Your task to perform on an android device: install app "NewsBreak: Local News & Alerts" Image 0: 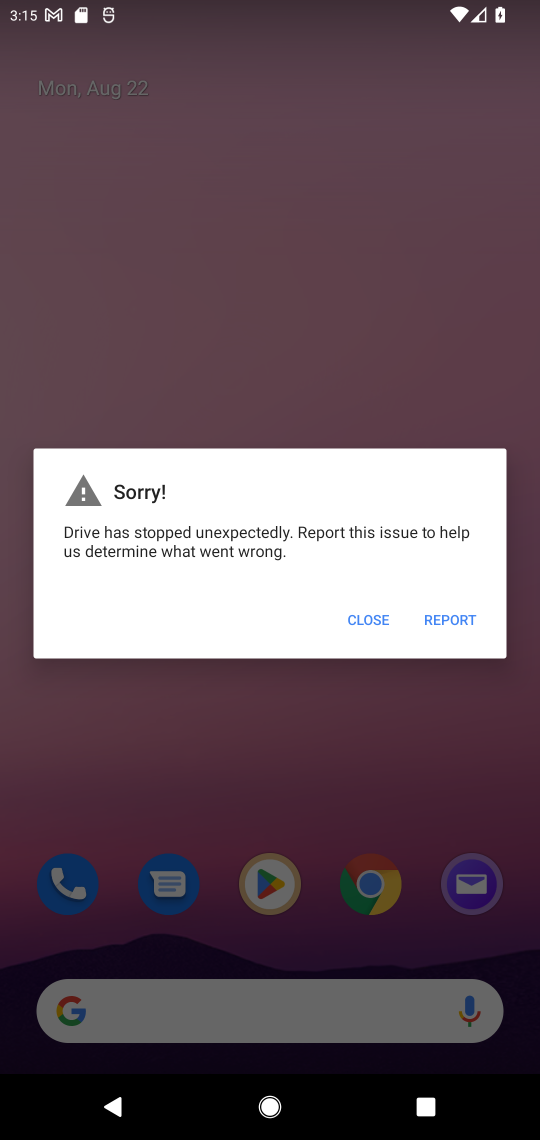
Step 0: click (368, 612)
Your task to perform on an android device: install app "NewsBreak: Local News & Alerts" Image 1: 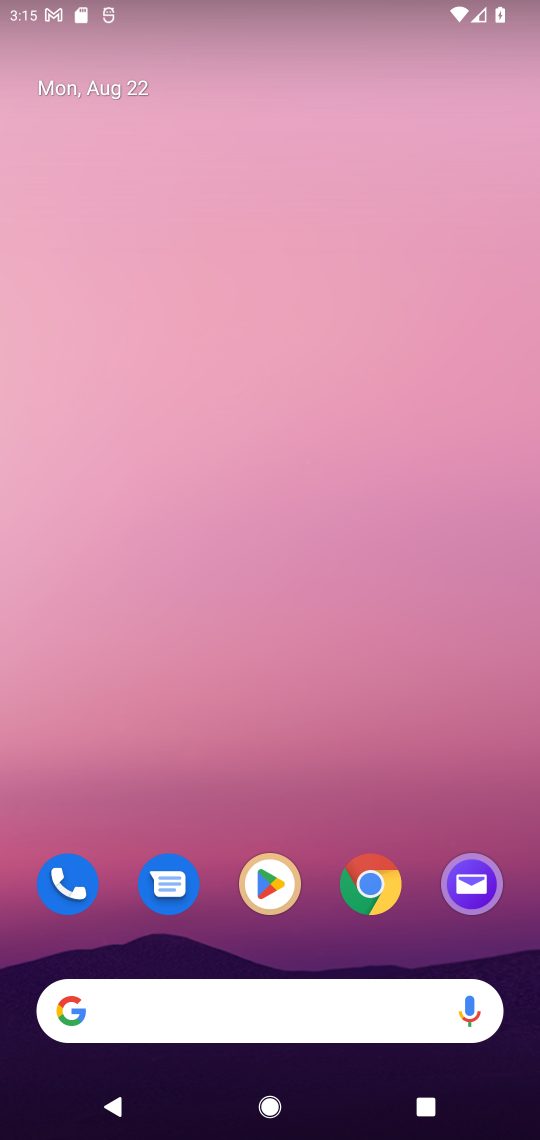
Step 1: click (279, 884)
Your task to perform on an android device: install app "NewsBreak: Local News & Alerts" Image 2: 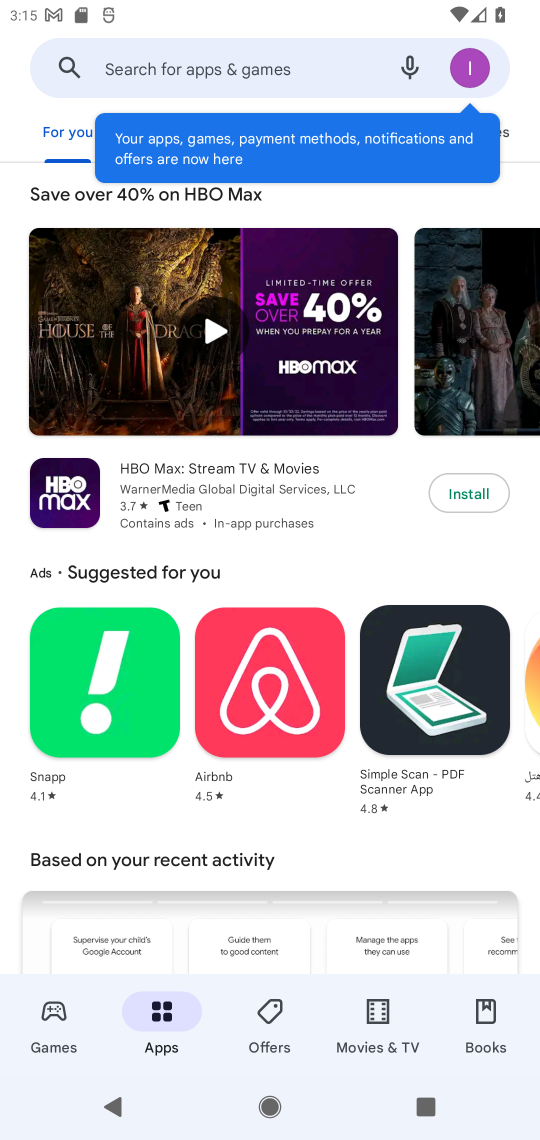
Step 2: click (232, 54)
Your task to perform on an android device: install app "NewsBreak: Local News & Alerts" Image 3: 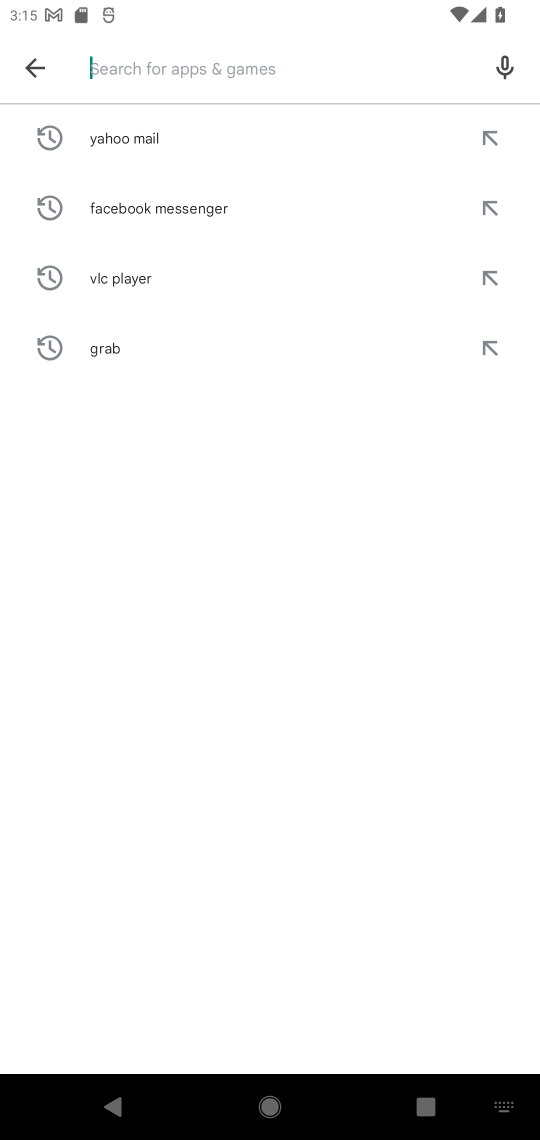
Step 3: type "news break"
Your task to perform on an android device: install app "NewsBreak: Local News & Alerts" Image 4: 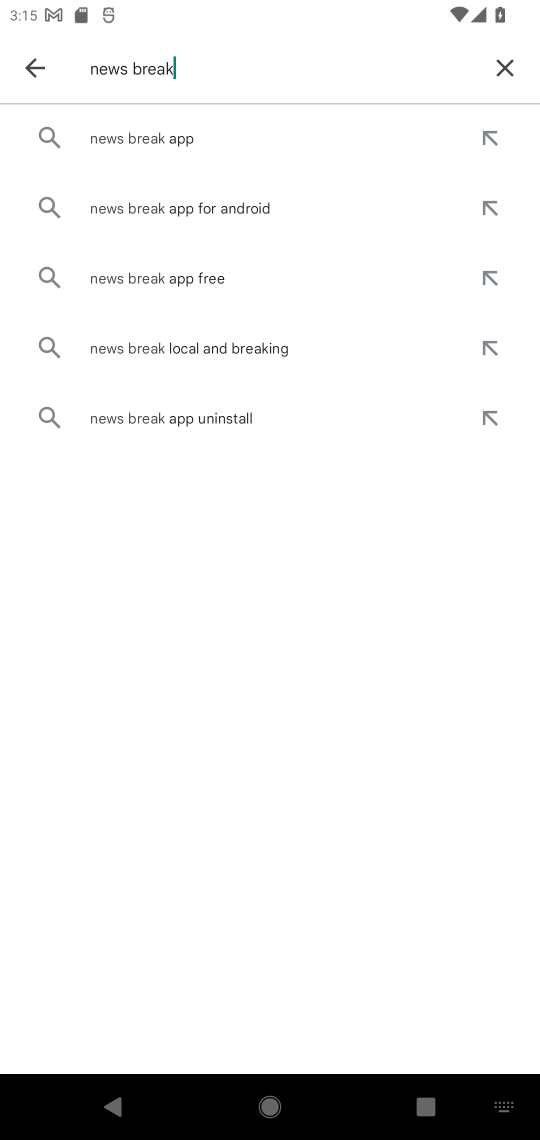
Step 4: click (152, 132)
Your task to perform on an android device: install app "NewsBreak: Local News & Alerts" Image 5: 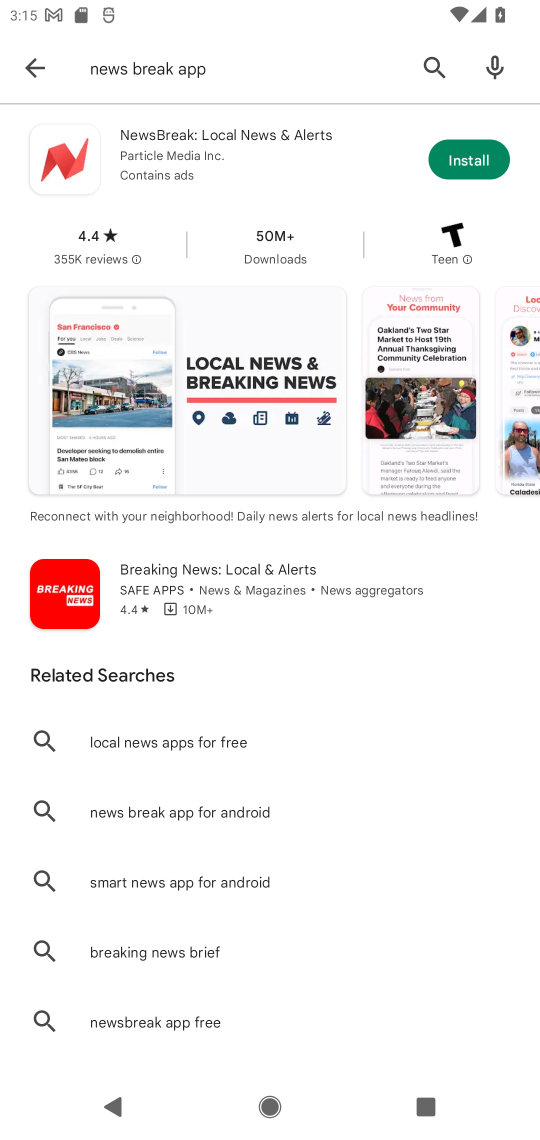
Step 5: click (485, 156)
Your task to perform on an android device: install app "NewsBreak: Local News & Alerts" Image 6: 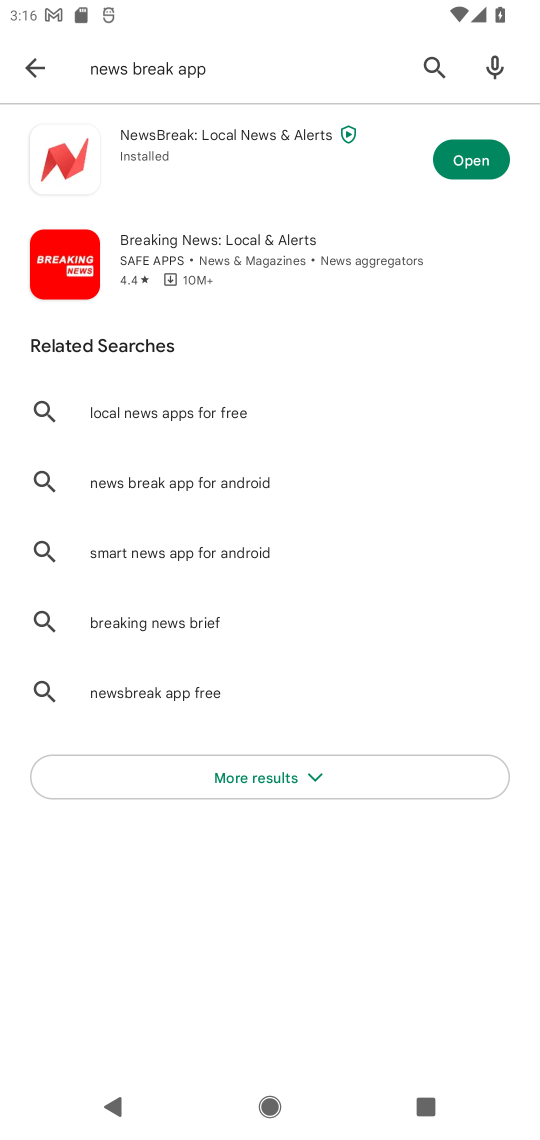
Step 6: task complete